Your task to perform on an android device: Open Android settings Image 0: 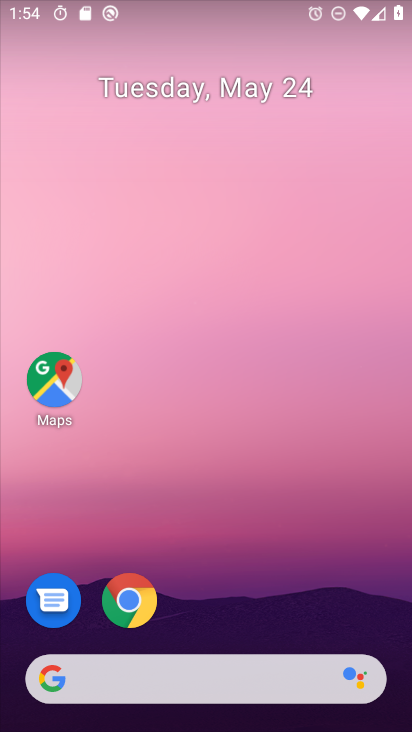
Step 0: drag from (264, 620) to (246, 143)
Your task to perform on an android device: Open Android settings Image 1: 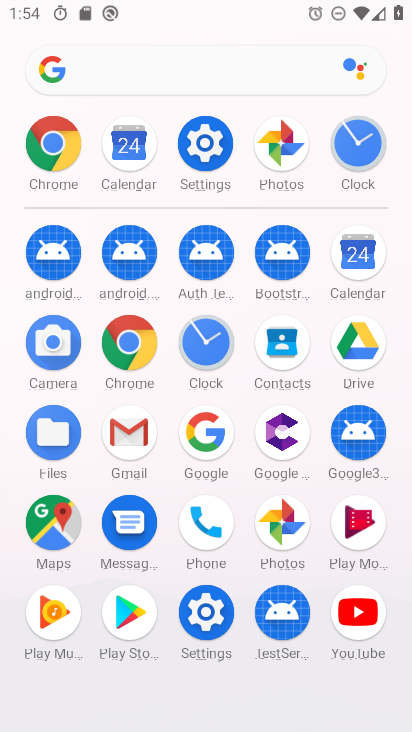
Step 1: click (204, 144)
Your task to perform on an android device: Open Android settings Image 2: 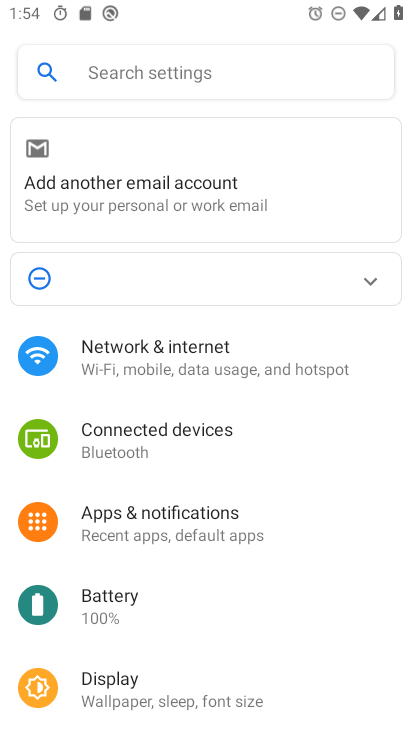
Step 2: task complete